Your task to perform on an android device: Go to Amazon Image 0: 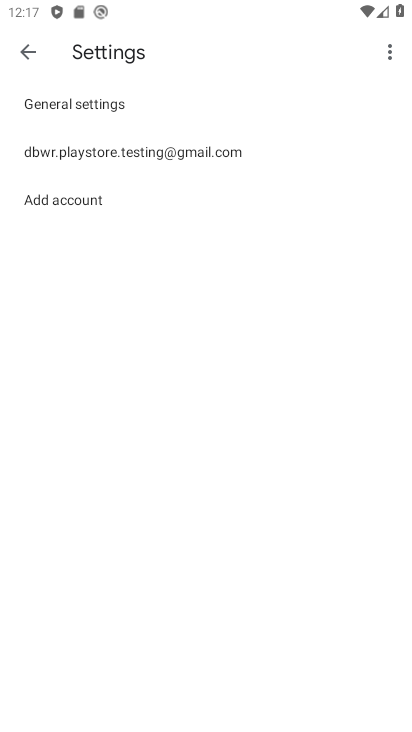
Step 0: press back button
Your task to perform on an android device: Go to Amazon Image 1: 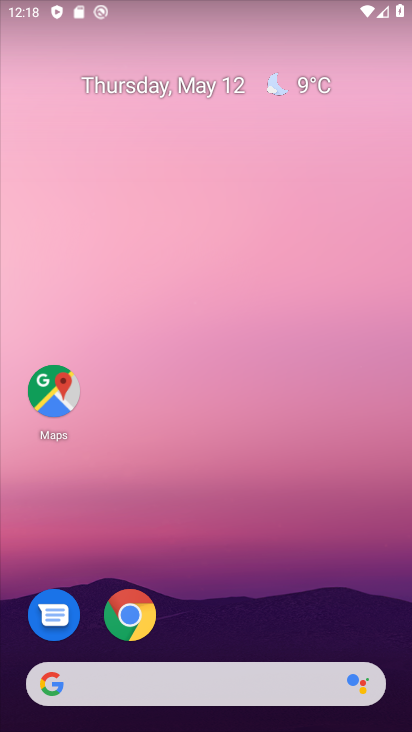
Step 1: click (129, 616)
Your task to perform on an android device: Go to Amazon Image 2: 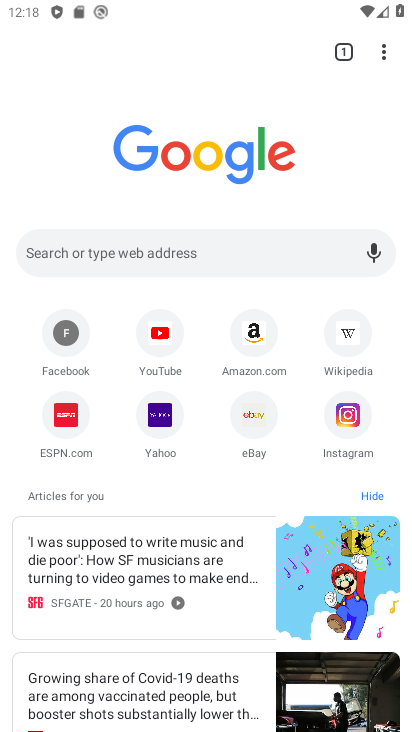
Step 2: click (172, 250)
Your task to perform on an android device: Go to Amazon Image 3: 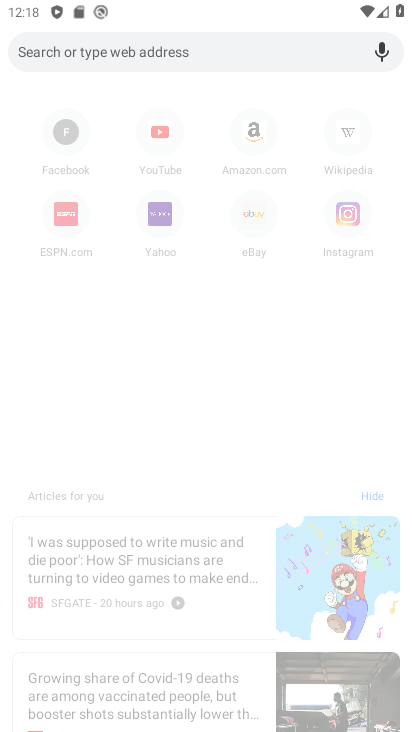
Step 3: click (172, 250)
Your task to perform on an android device: Go to Amazon Image 4: 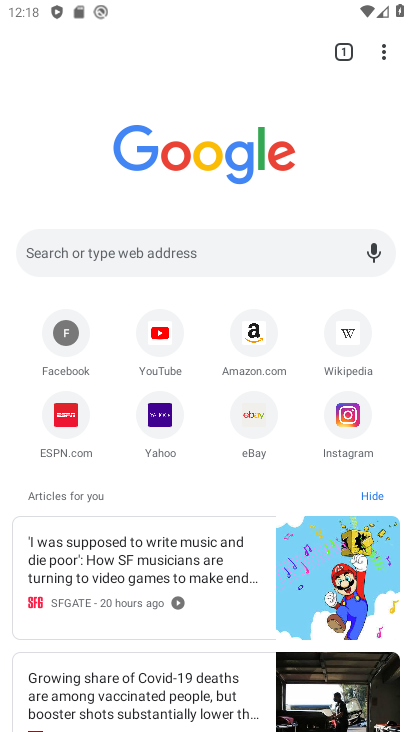
Step 4: click (172, 250)
Your task to perform on an android device: Go to Amazon Image 5: 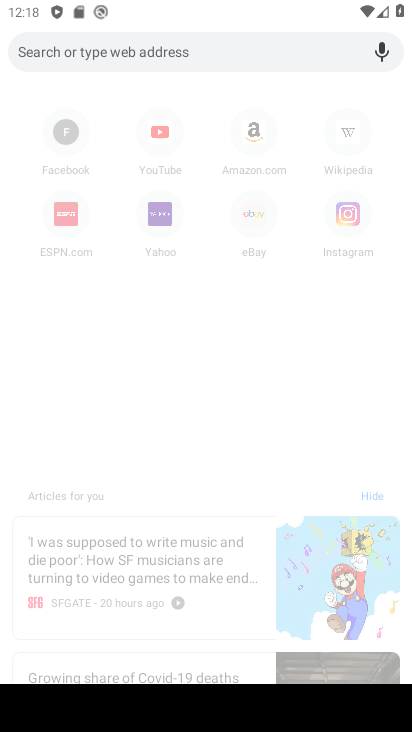
Step 5: click (256, 42)
Your task to perform on an android device: Go to Amazon Image 6: 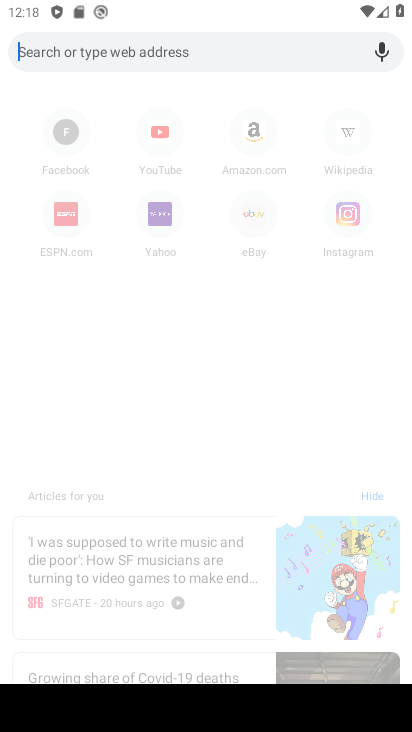
Step 6: type "Amazon"
Your task to perform on an android device: Go to Amazon Image 7: 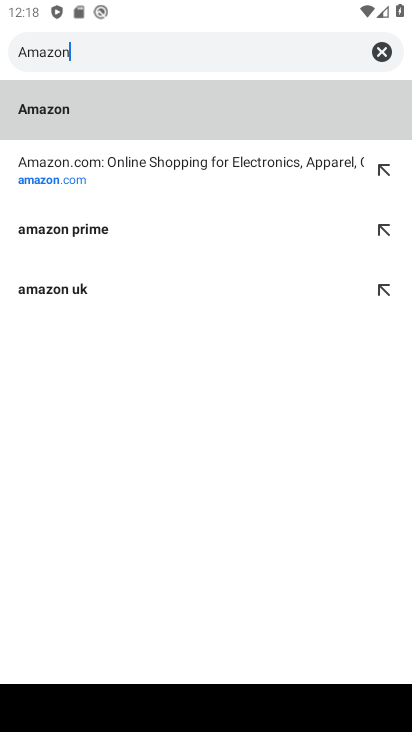
Step 7: click (63, 113)
Your task to perform on an android device: Go to Amazon Image 8: 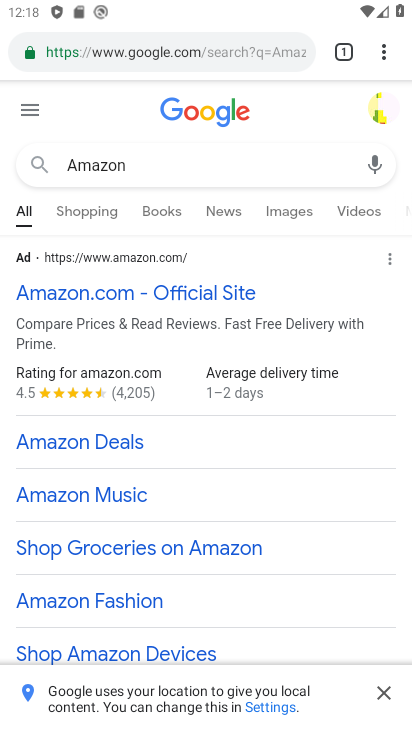
Step 8: click (151, 289)
Your task to perform on an android device: Go to Amazon Image 9: 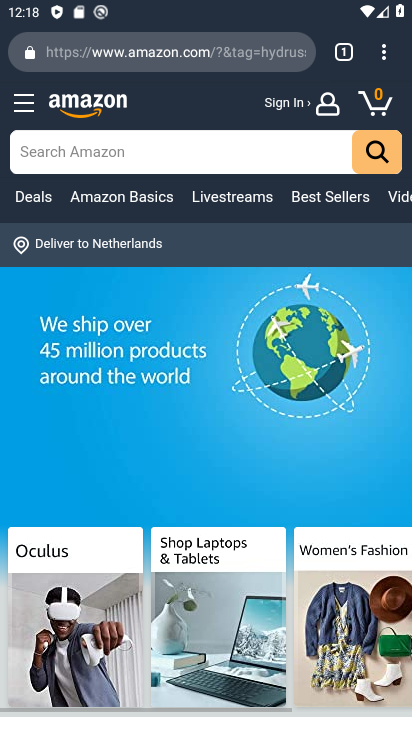
Step 9: task complete